Your task to perform on an android device: turn off priority inbox in the gmail app Image 0: 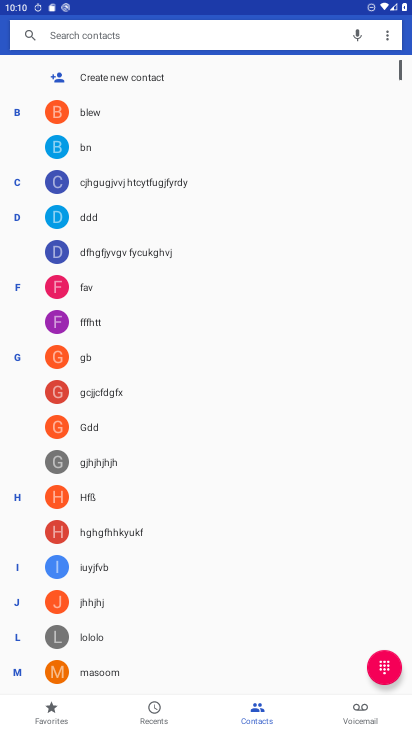
Step 0: press home button
Your task to perform on an android device: turn off priority inbox in the gmail app Image 1: 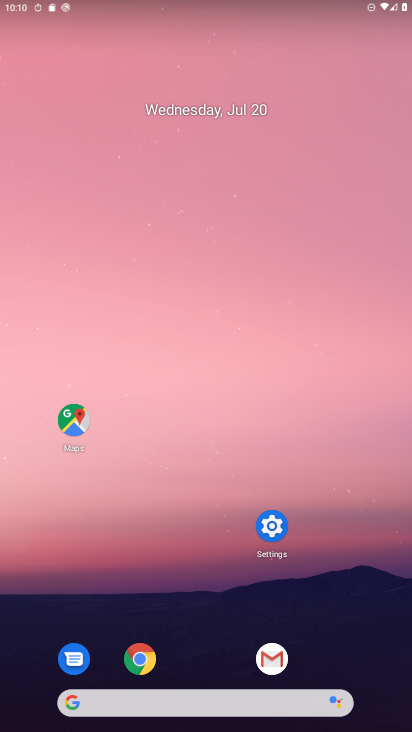
Step 1: click (267, 653)
Your task to perform on an android device: turn off priority inbox in the gmail app Image 2: 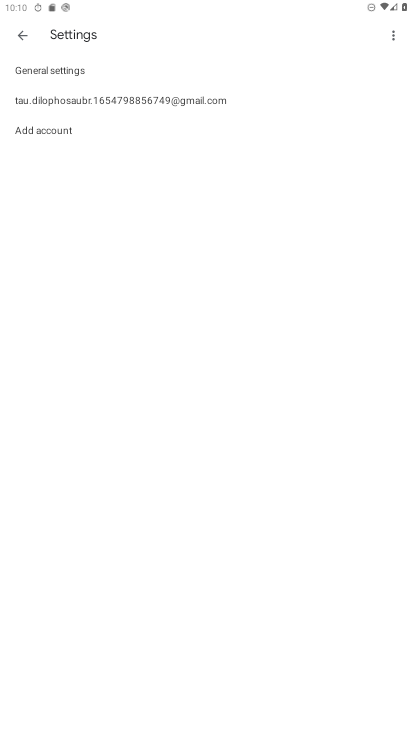
Step 2: click (73, 104)
Your task to perform on an android device: turn off priority inbox in the gmail app Image 3: 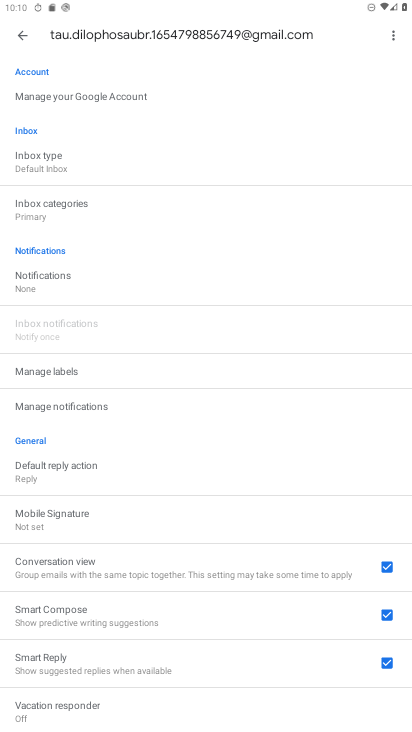
Step 3: click (72, 169)
Your task to perform on an android device: turn off priority inbox in the gmail app Image 4: 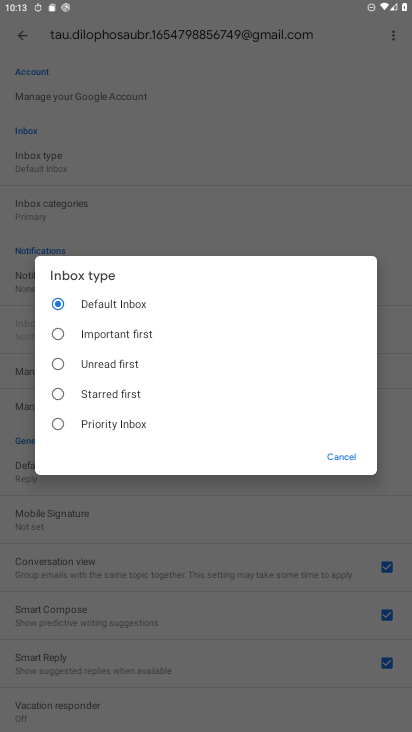
Step 4: task complete